Your task to perform on an android device: change keyboard looks Image 0: 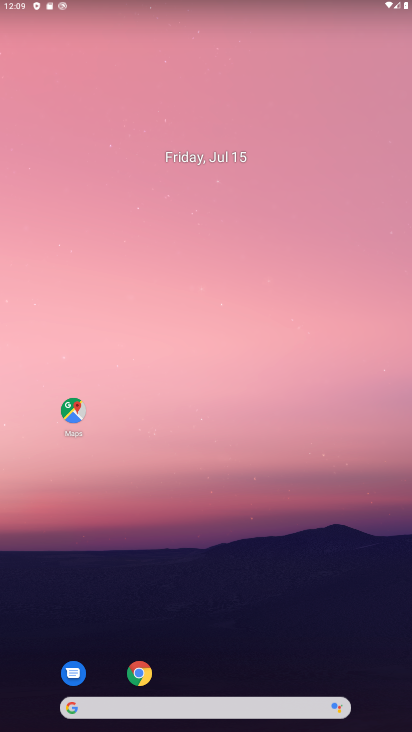
Step 0: drag from (354, 647) to (269, 67)
Your task to perform on an android device: change keyboard looks Image 1: 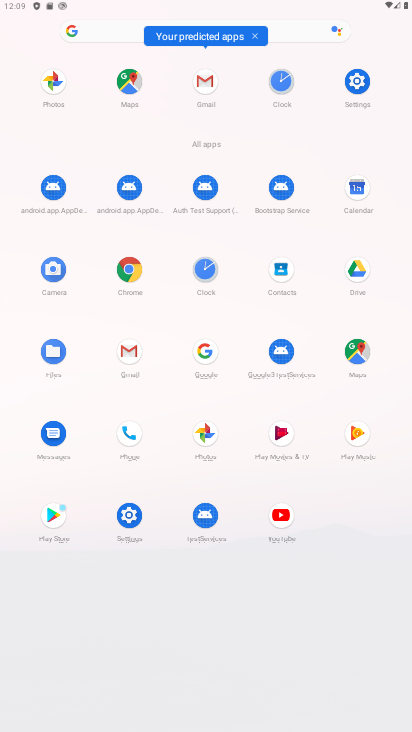
Step 1: click (357, 76)
Your task to perform on an android device: change keyboard looks Image 2: 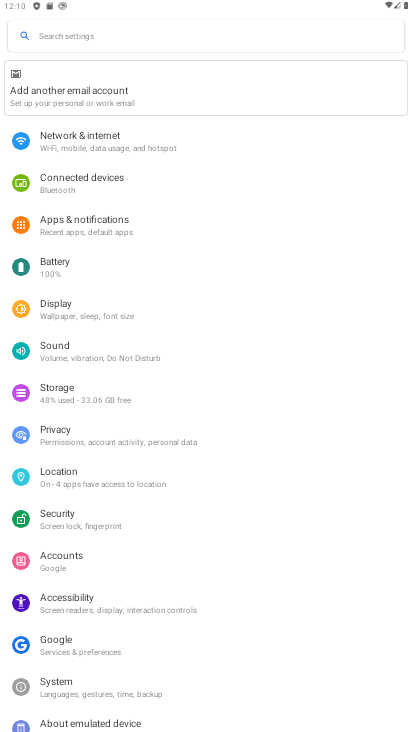
Step 2: click (99, 692)
Your task to perform on an android device: change keyboard looks Image 3: 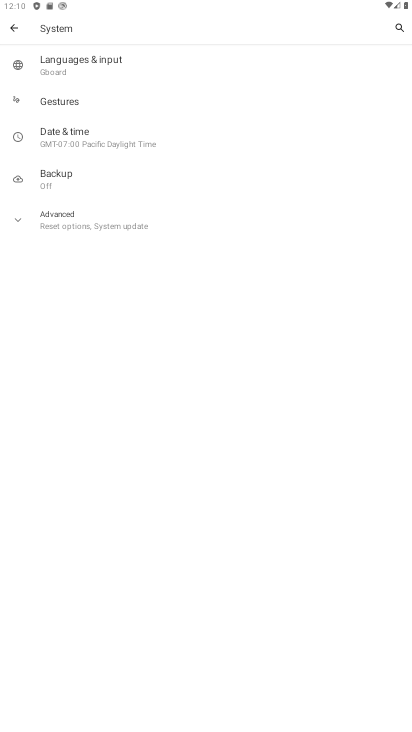
Step 3: click (65, 65)
Your task to perform on an android device: change keyboard looks Image 4: 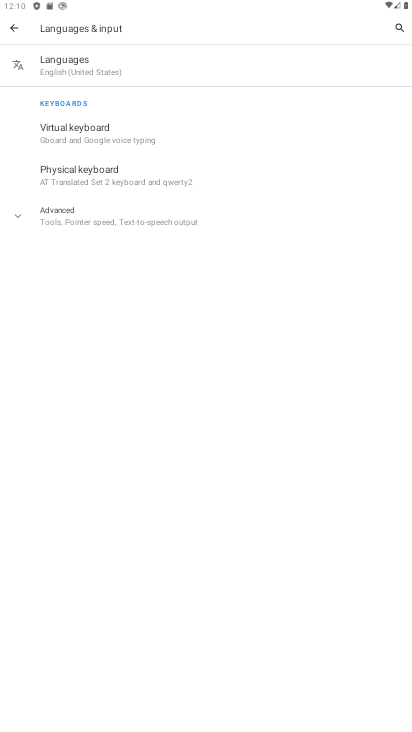
Step 4: click (64, 127)
Your task to perform on an android device: change keyboard looks Image 5: 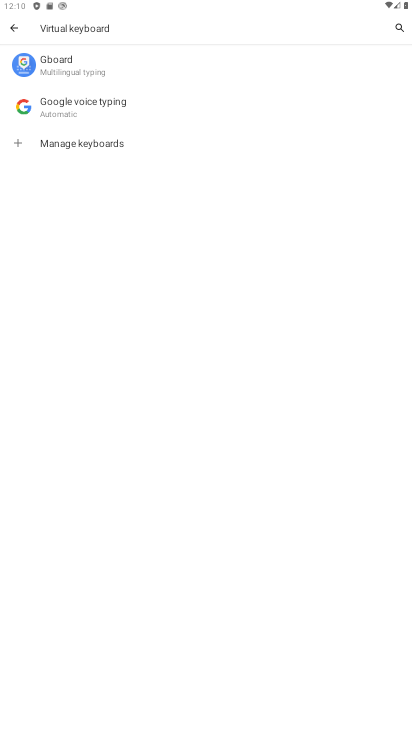
Step 5: click (63, 70)
Your task to perform on an android device: change keyboard looks Image 6: 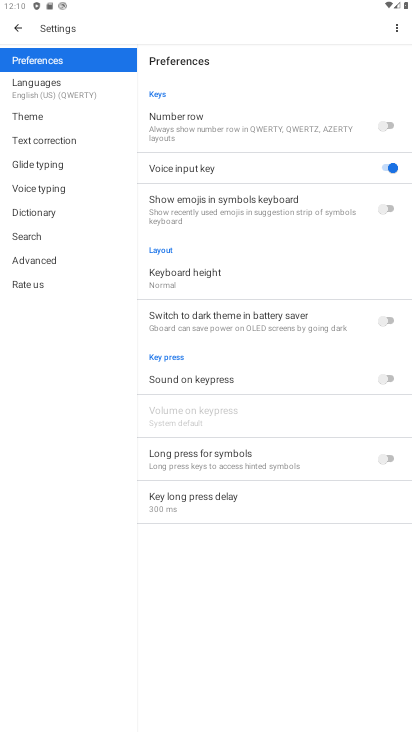
Step 6: click (39, 111)
Your task to perform on an android device: change keyboard looks Image 7: 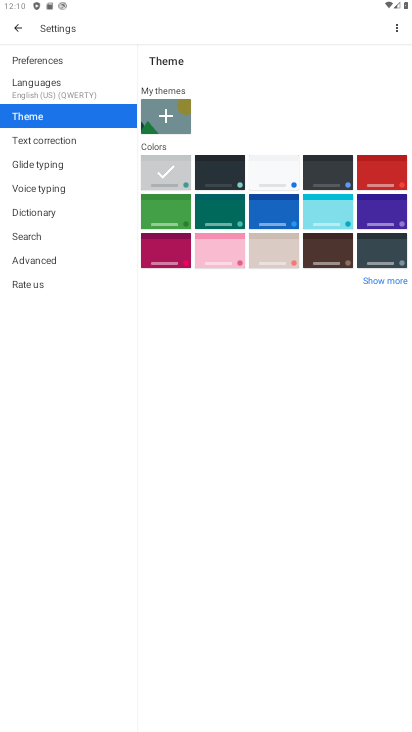
Step 7: click (285, 208)
Your task to perform on an android device: change keyboard looks Image 8: 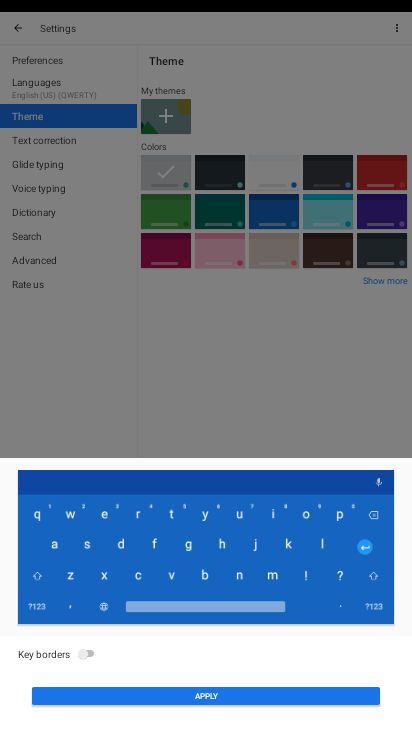
Step 8: click (161, 700)
Your task to perform on an android device: change keyboard looks Image 9: 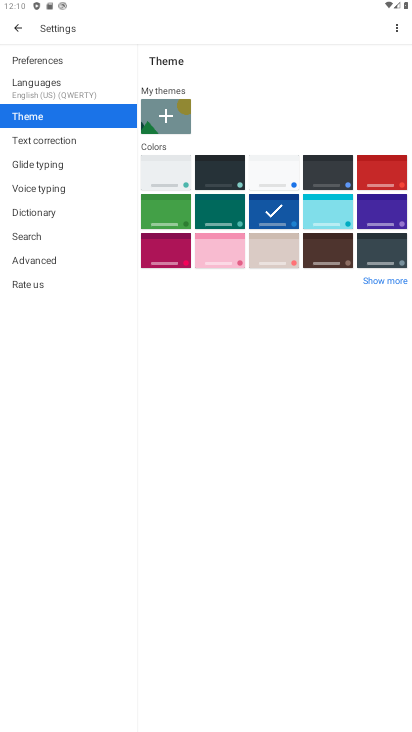
Step 9: task complete